Your task to perform on an android device: open app "Grab" Image 0: 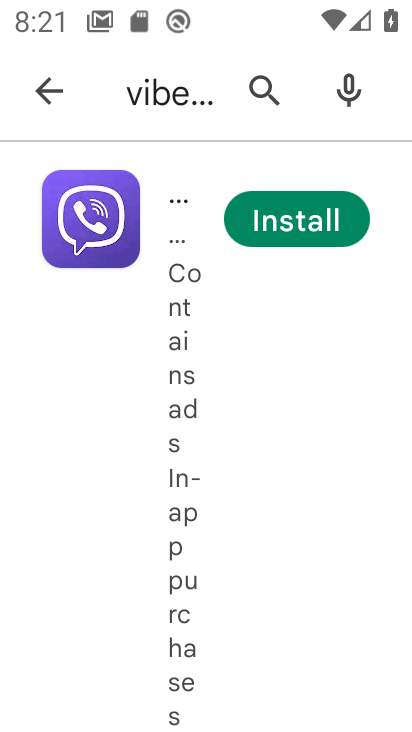
Step 0: press home button
Your task to perform on an android device: open app "Grab" Image 1: 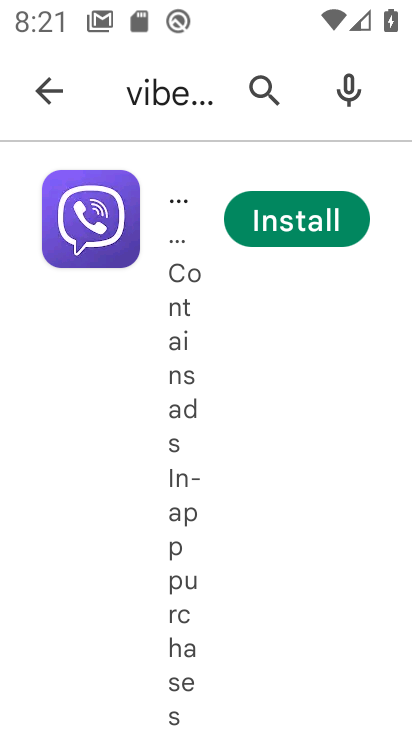
Step 1: press home button
Your task to perform on an android device: open app "Grab" Image 2: 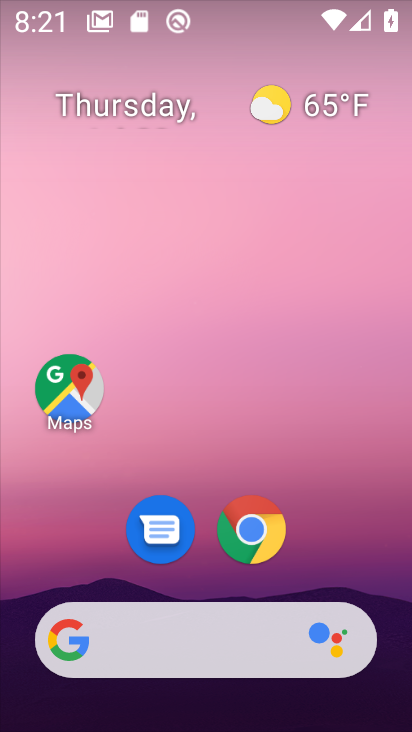
Step 2: drag from (210, 727) to (208, 100)
Your task to perform on an android device: open app "Grab" Image 3: 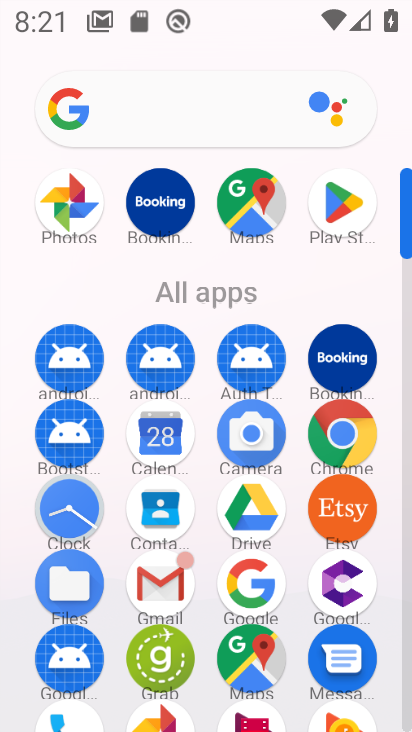
Step 3: click (335, 218)
Your task to perform on an android device: open app "Grab" Image 4: 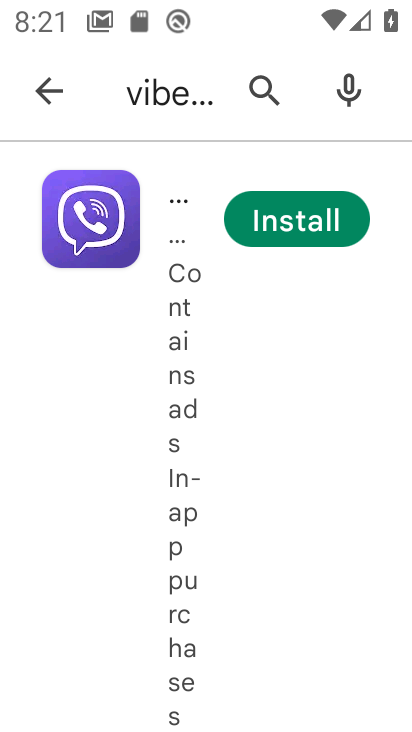
Step 4: click (258, 92)
Your task to perform on an android device: open app "Grab" Image 5: 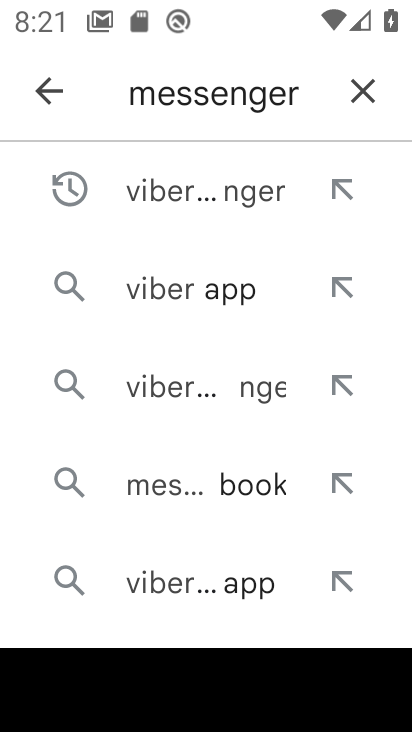
Step 5: click (354, 86)
Your task to perform on an android device: open app "Grab" Image 6: 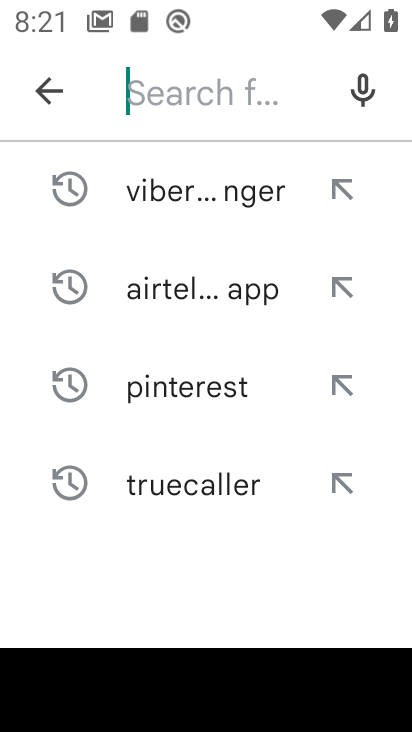
Step 6: type "Grab"
Your task to perform on an android device: open app "Grab" Image 7: 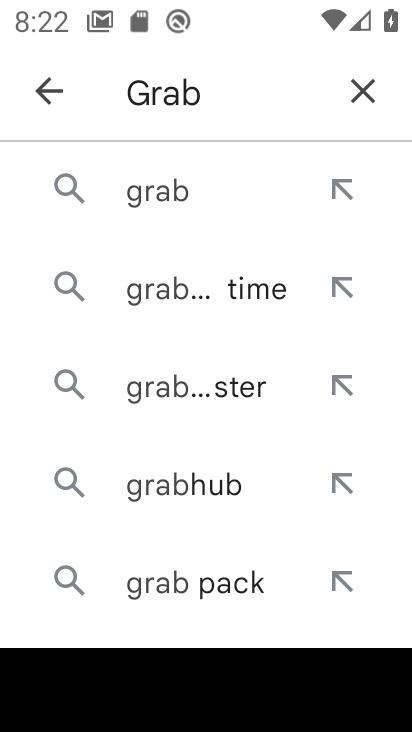
Step 7: click (166, 191)
Your task to perform on an android device: open app "Grab" Image 8: 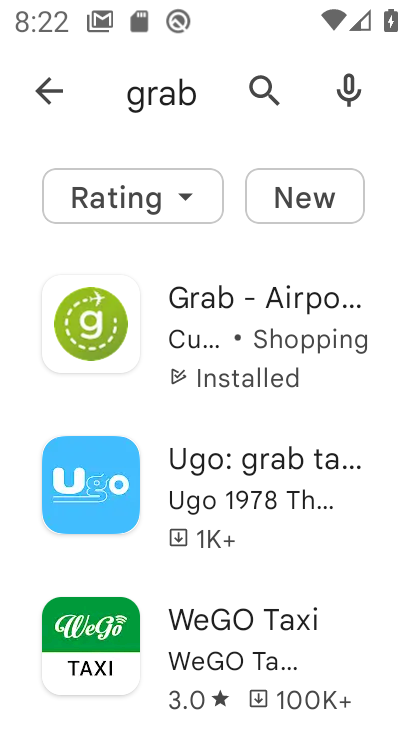
Step 8: click (197, 296)
Your task to perform on an android device: open app "Grab" Image 9: 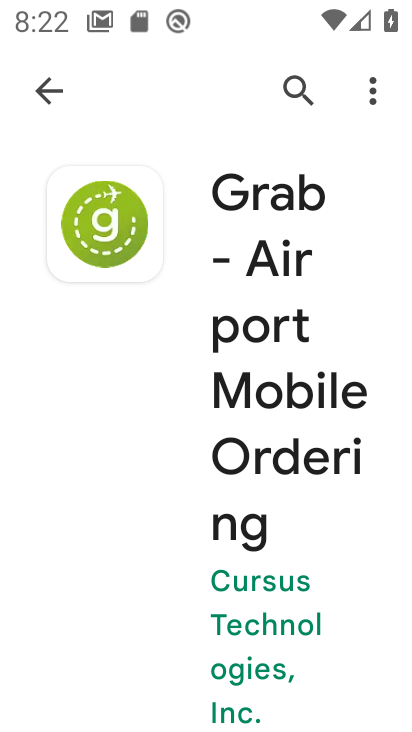
Step 9: drag from (165, 625) to (177, 311)
Your task to perform on an android device: open app "Grab" Image 10: 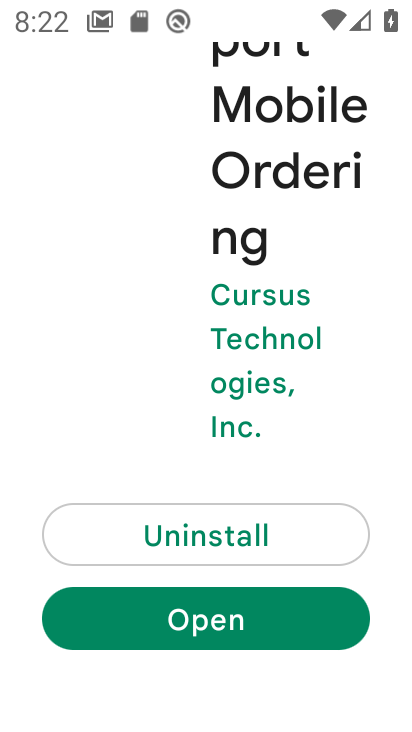
Step 10: click (198, 612)
Your task to perform on an android device: open app "Grab" Image 11: 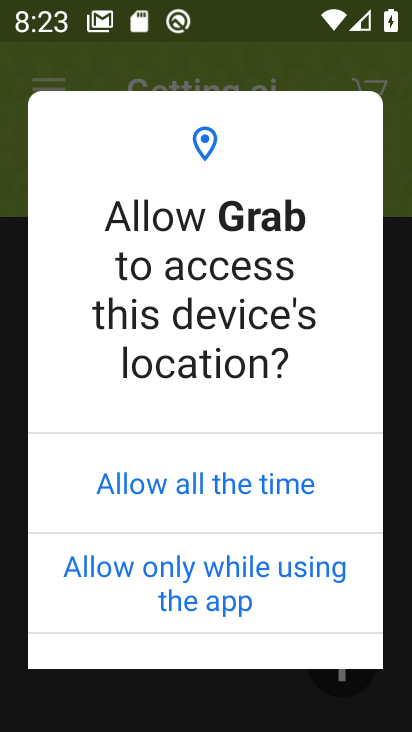
Step 11: click (212, 482)
Your task to perform on an android device: open app "Grab" Image 12: 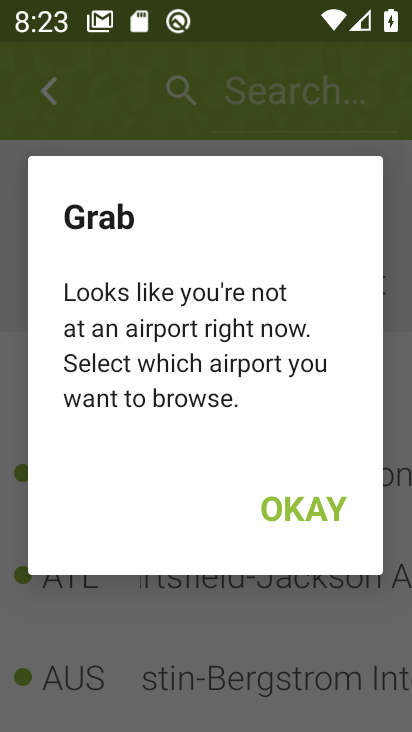
Step 12: task complete